Your task to perform on an android device: open the mobile data screen to see how much data has been used Image 0: 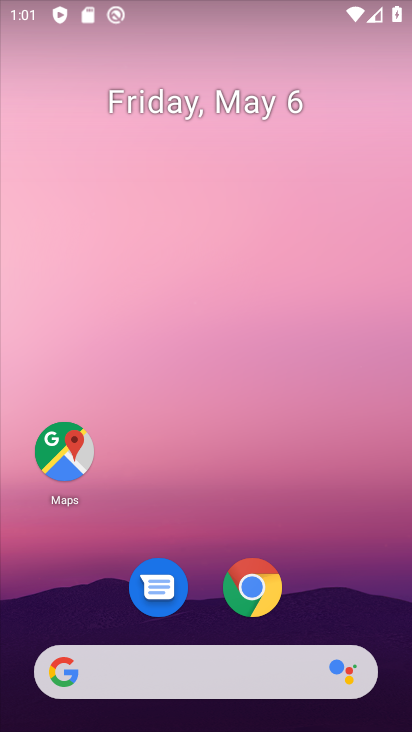
Step 0: press home button
Your task to perform on an android device: open the mobile data screen to see how much data has been used Image 1: 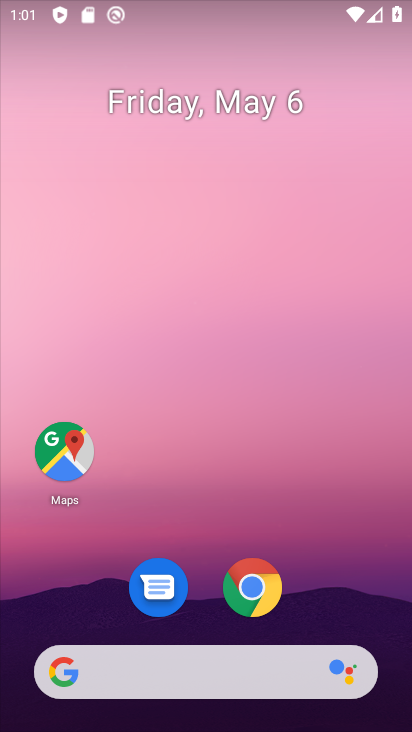
Step 1: press home button
Your task to perform on an android device: open the mobile data screen to see how much data has been used Image 2: 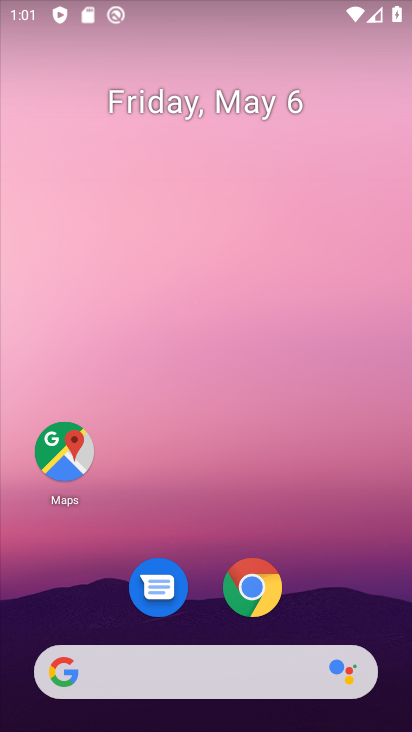
Step 2: drag from (209, 626) to (223, 65)
Your task to perform on an android device: open the mobile data screen to see how much data has been used Image 3: 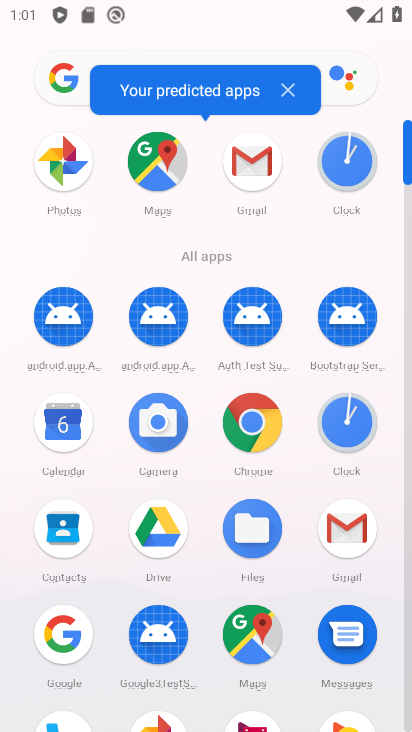
Step 3: drag from (203, 465) to (193, 74)
Your task to perform on an android device: open the mobile data screen to see how much data has been used Image 4: 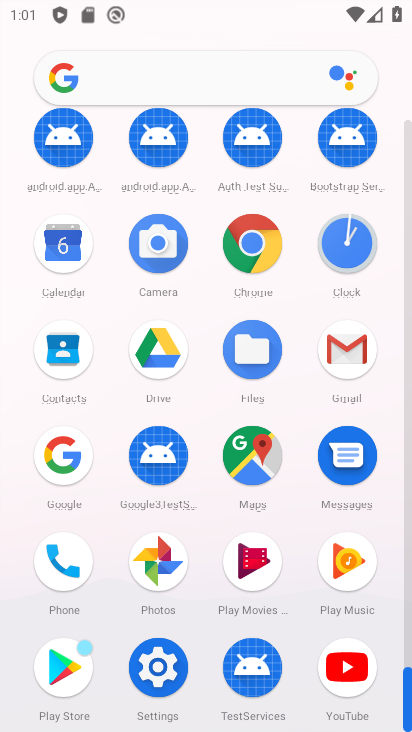
Step 4: click (159, 665)
Your task to perform on an android device: open the mobile data screen to see how much data has been used Image 5: 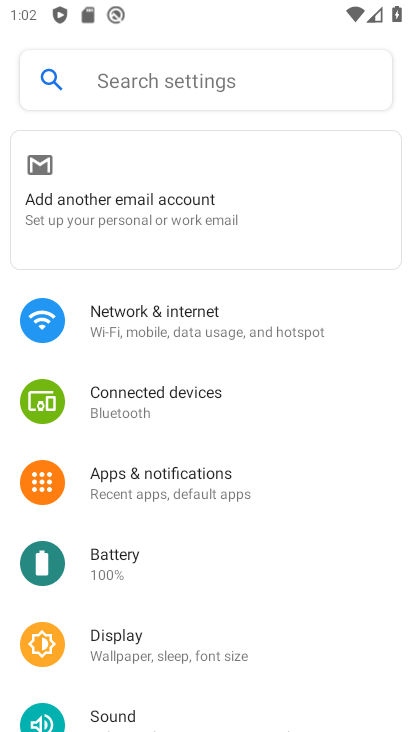
Step 5: click (177, 315)
Your task to perform on an android device: open the mobile data screen to see how much data has been used Image 6: 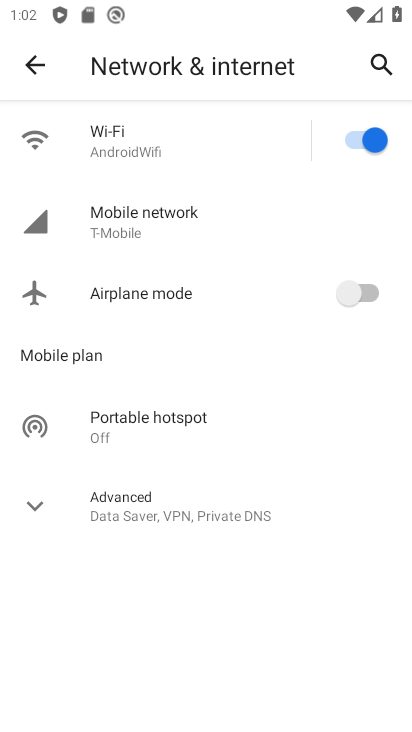
Step 6: click (163, 233)
Your task to perform on an android device: open the mobile data screen to see how much data has been used Image 7: 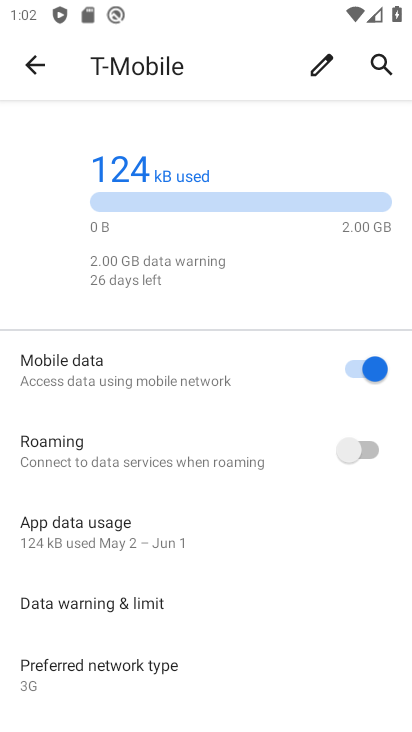
Step 7: click (141, 528)
Your task to perform on an android device: open the mobile data screen to see how much data has been used Image 8: 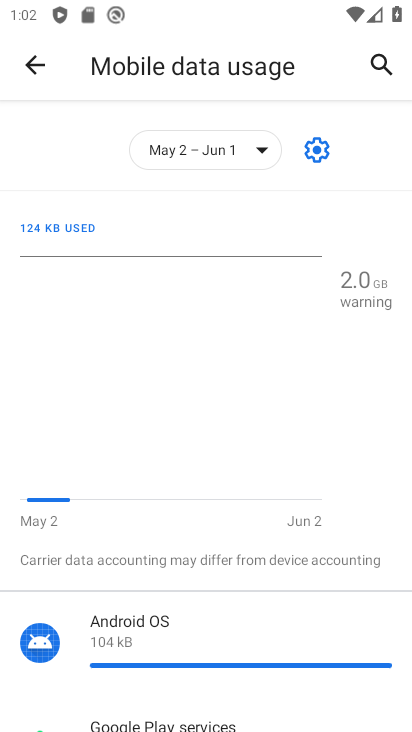
Step 8: task complete